Your task to perform on an android device: add a label to a message in the gmail app Image 0: 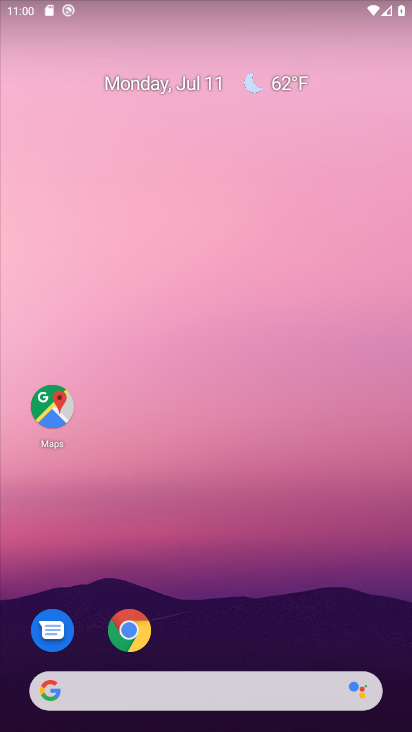
Step 0: drag from (286, 606) to (278, 27)
Your task to perform on an android device: add a label to a message in the gmail app Image 1: 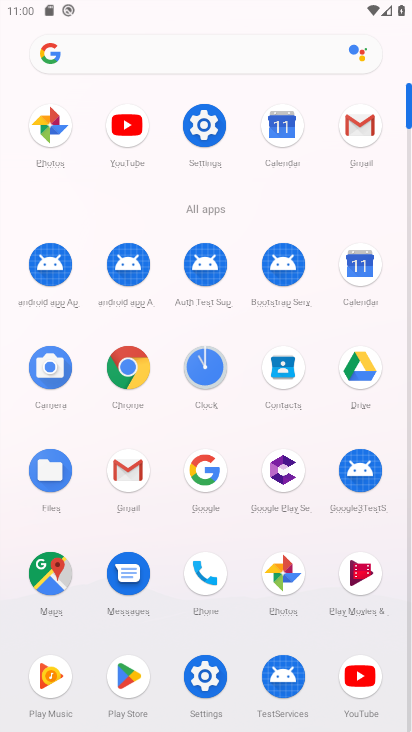
Step 1: click (359, 123)
Your task to perform on an android device: add a label to a message in the gmail app Image 2: 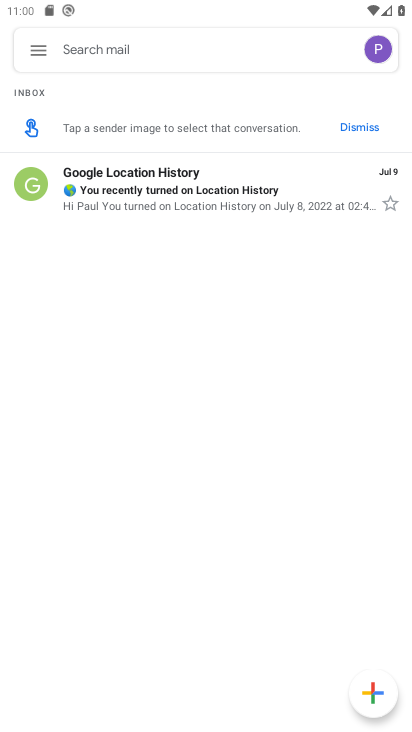
Step 2: click (215, 184)
Your task to perform on an android device: add a label to a message in the gmail app Image 3: 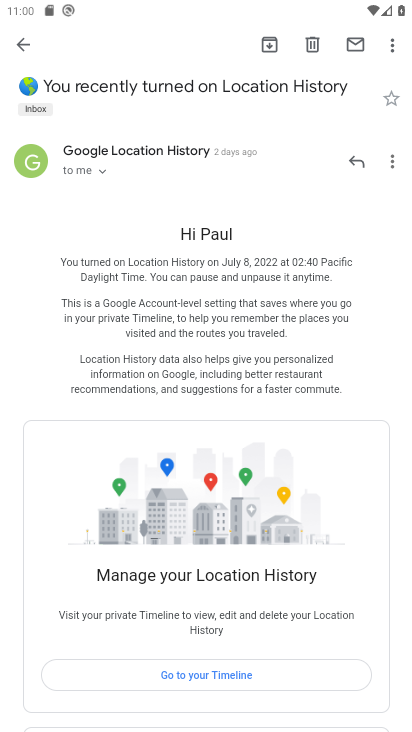
Step 3: click (392, 42)
Your task to perform on an android device: add a label to a message in the gmail app Image 4: 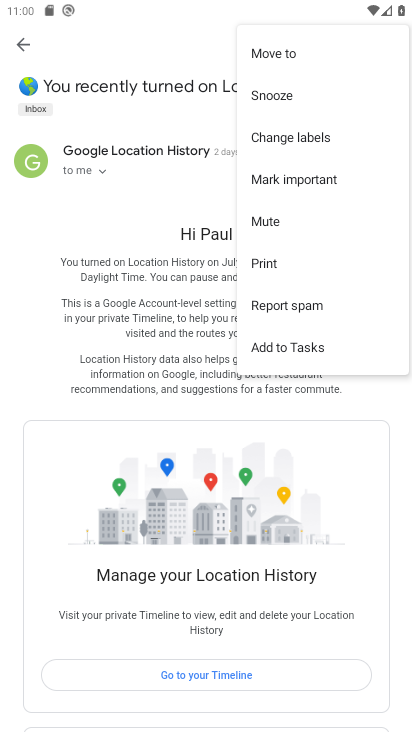
Step 4: click (316, 127)
Your task to perform on an android device: add a label to a message in the gmail app Image 5: 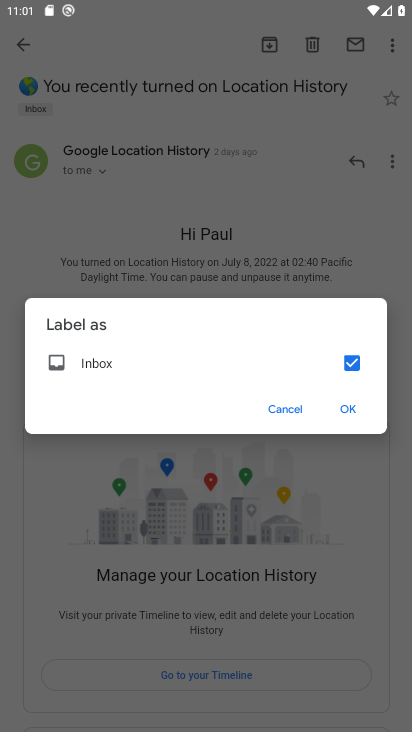
Step 5: click (346, 407)
Your task to perform on an android device: add a label to a message in the gmail app Image 6: 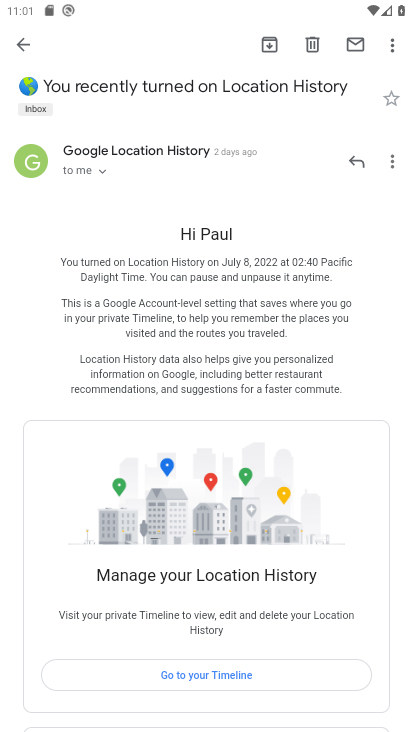
Step 6: task complete